Your task to perform on an android device: Open location settings Image 0: 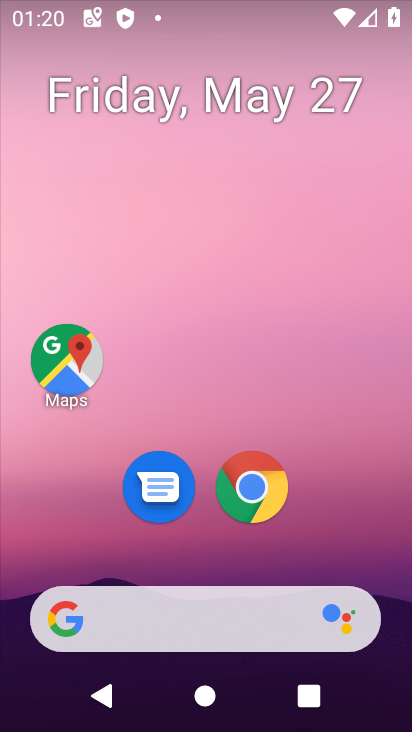
Step 0: drag from (157, 724) to (338, 25)
Your task to perform on an android device: Open location settings Image 1: 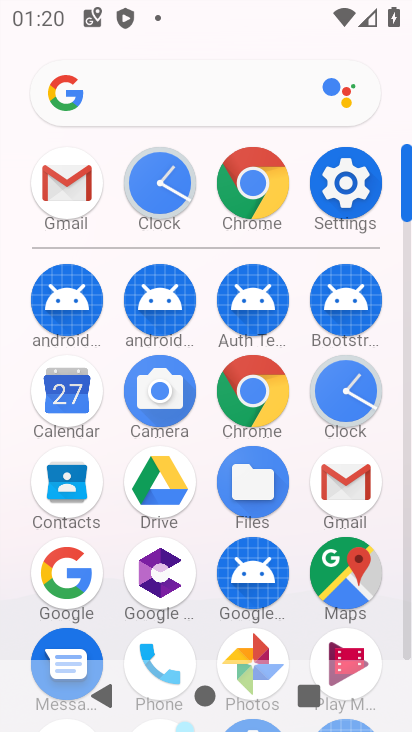
Step 1: click (363, 197)
Your task to perform on an android device: Open location settings Image 2: 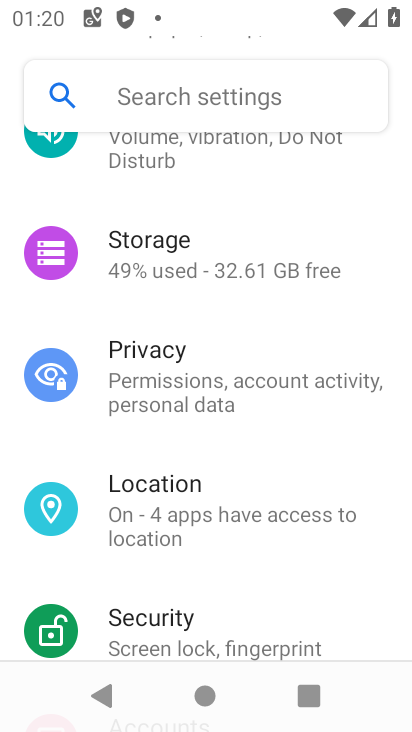
Step 2: click (205, 510)
Your task to perform on an android device: Open location settings Image 3: 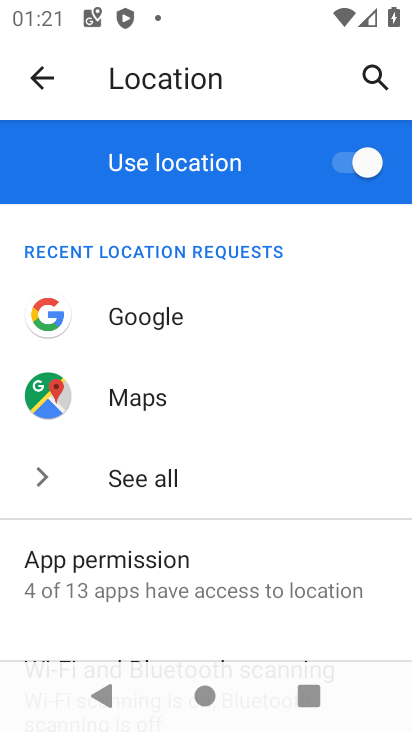
Step 3: task complete